Your task to perform on an android device: turn off picture-in-picture Image 0: 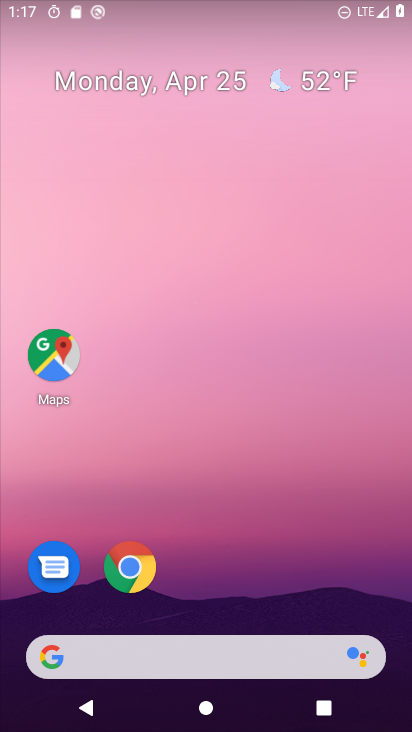
Step 0: click (137, 562)
Your task to perform on an android device: turn off picture-in-picture Image 1: 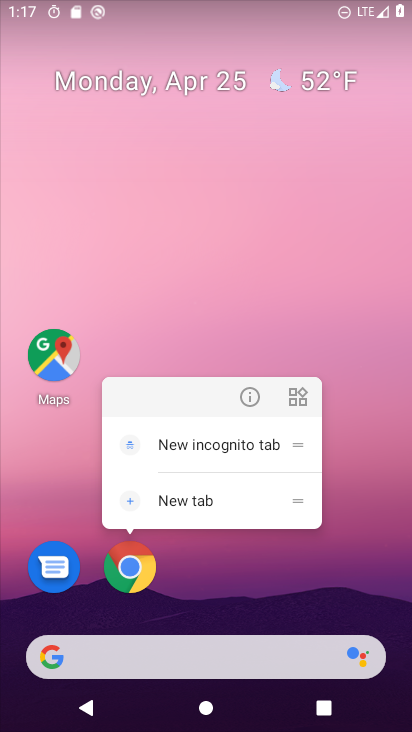
Step 1: click (252, 394)
Your task to perform on an android device: turn off picture-in-picture Image 2: 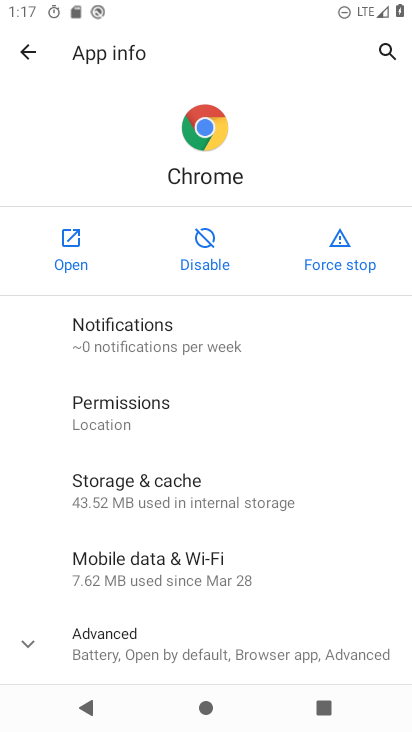
Step 2: drag from (262, 600) to (279, 149)
Your task to perform on an android device: turn off picture-in-picture Image 3: 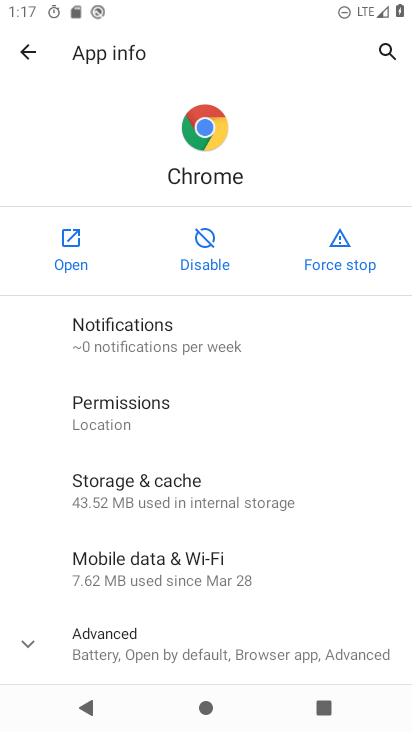
Step 3: click (29, 638)
Your task to perform on an android device: turn off picture-in-picture Image 4: 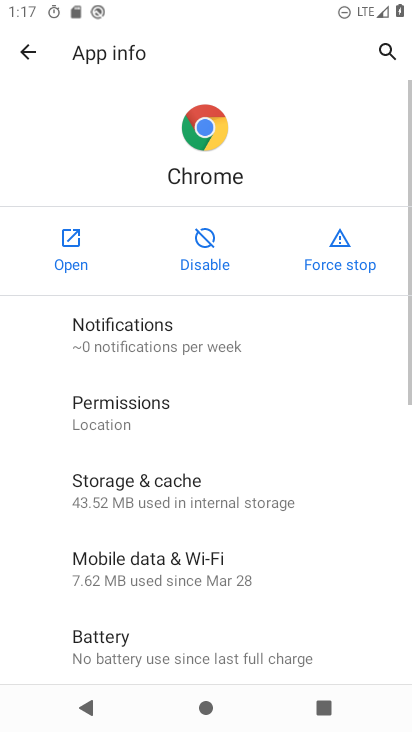
Step 4: drag from (217, 571) to (309, 152)
Your task to perform on an android device: turn off picture-in-picture Image 5: 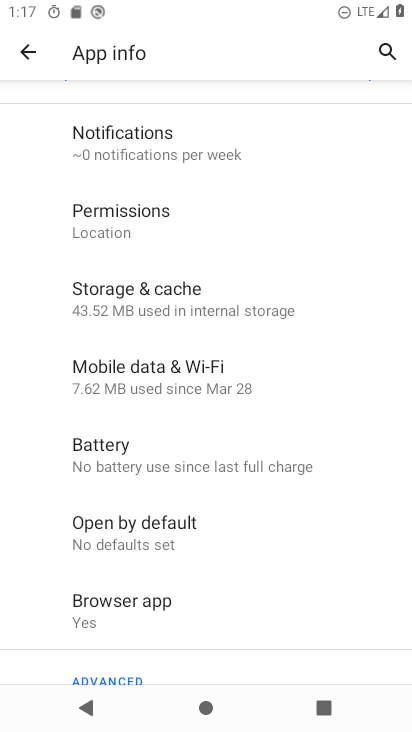
Step 5: drag from (239, 539) to (238, 238)
Your task to perform on an android device: turn off picture-in-picture Image 6: 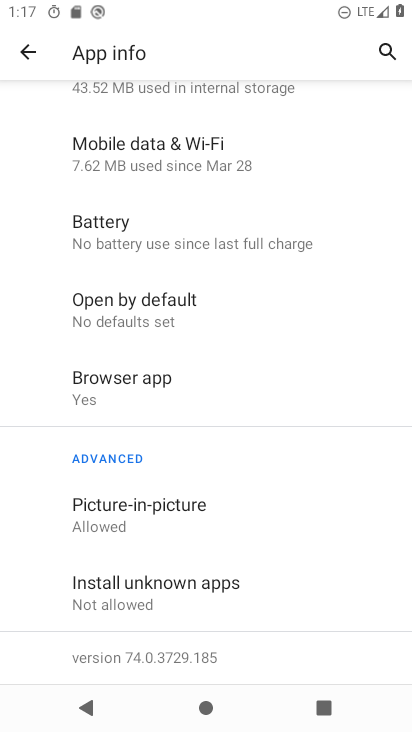
Step 6: click (199, 515)
Your task to perform on an android device: turn off picture-in-picture Image 7: 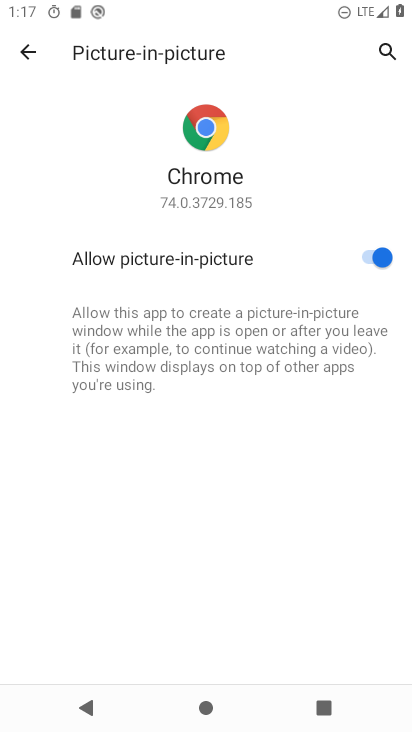
Step 7: click (370, 255)
Your task to perform on an android device: turn off picture-in-picture Image 8: 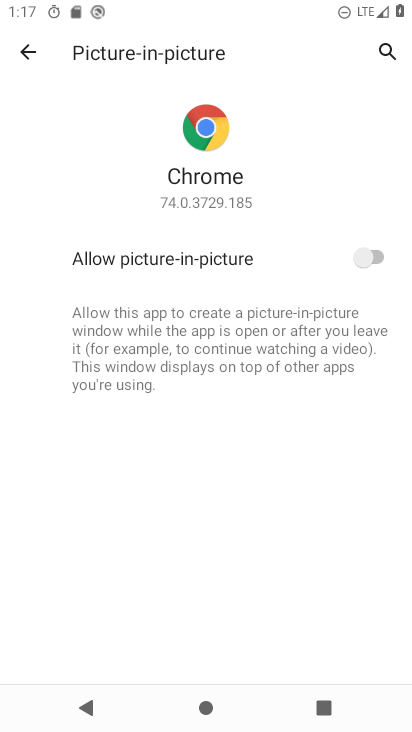
Step 8: task complete